Your task to perform on an android device: toggle location history Image 0: 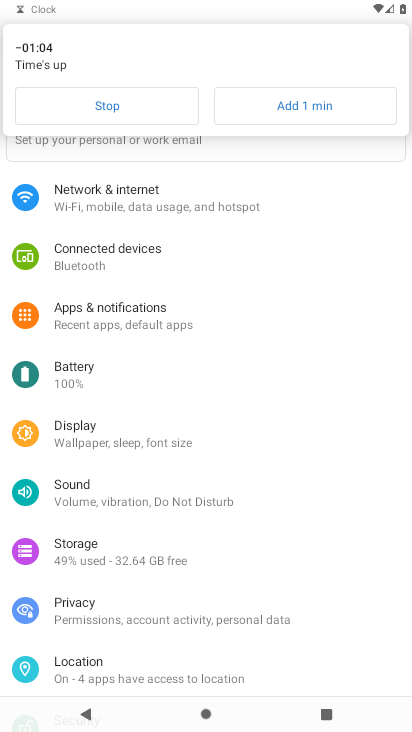
Step 0: click (155, 114)
Your task to perform on an android device: toggle location history Image 1: 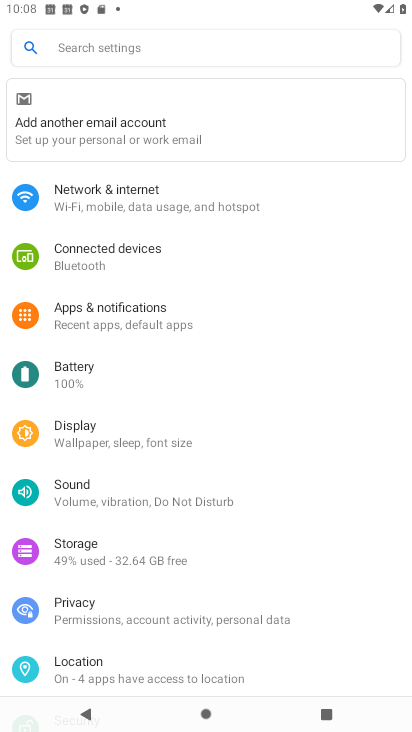
Step 1: press home button
Your task to perform on an android device: toggle location history Image 2: 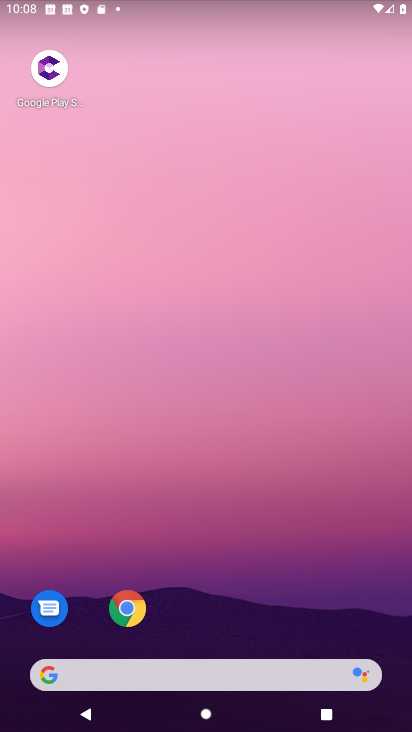
Step 2: drag from (287, 634) to (253, 84)
Your task to perform on an android device: toggle location history Image 3: 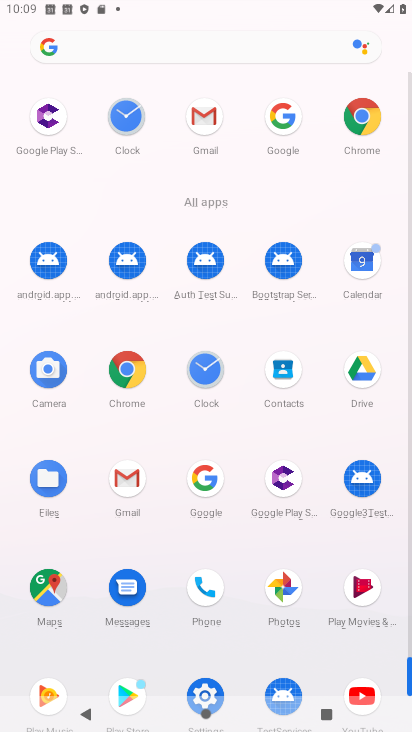
Step 3: click (54, 578)
Your task to perform on an android device: toggle location history Image 4: 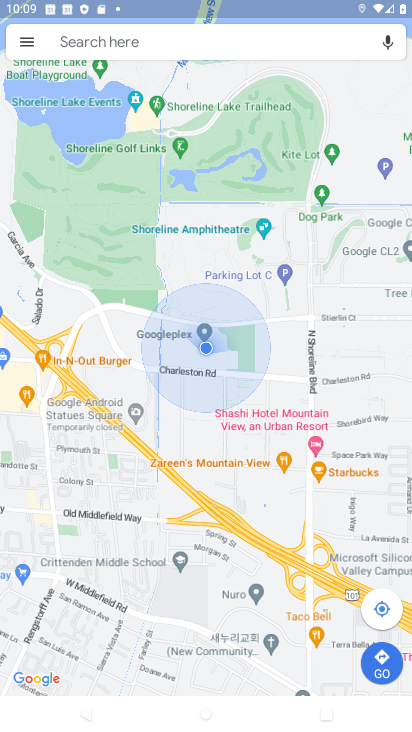
Step 4: click (31, 45)
Your task to perform on an android device: toggle location history Image 5: 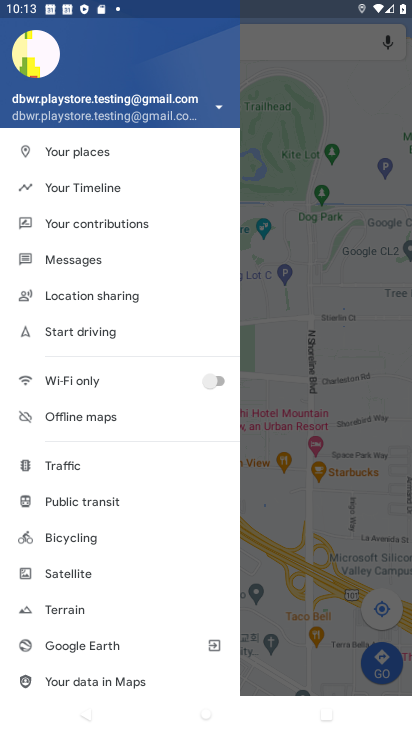
Step 5: click (91, 187)
Your task to perform on an android device: toggle location history Image 6: 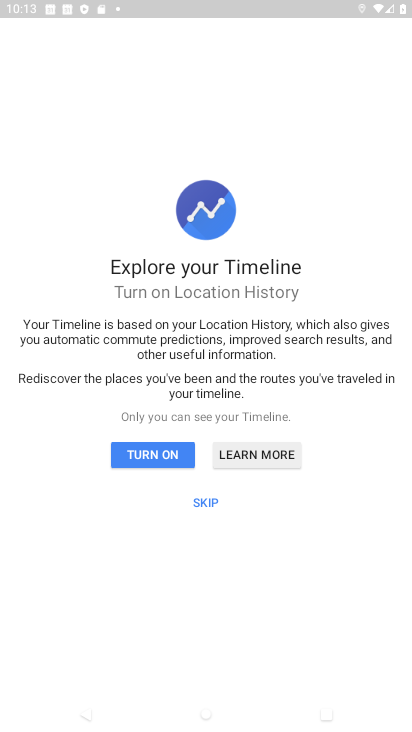
Step 6: click (146, 443)
Your task to perform on an android device: toggle location history Image 7: 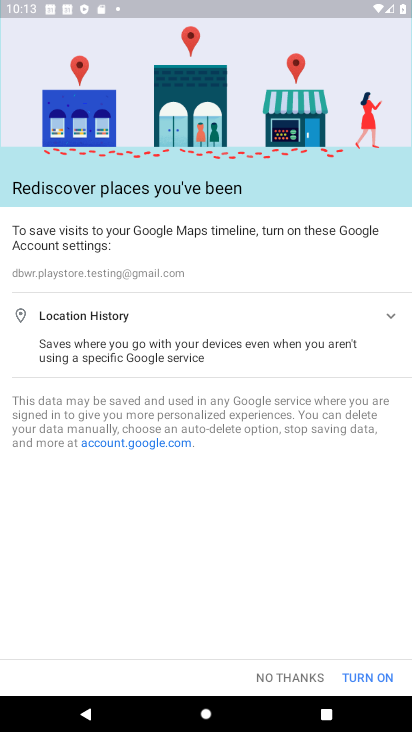
Step 7: click (355, 678)
Your task to perform on an android device: toggle location history Image 8: 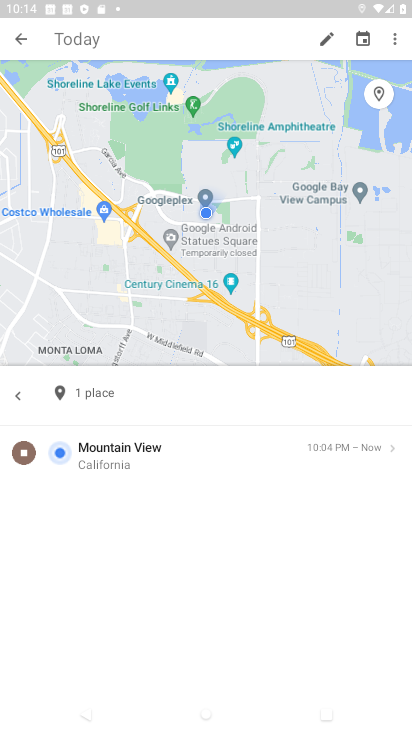
Step 8: task complete